Your task to perform on an android device: Go to Google maps Image 0: 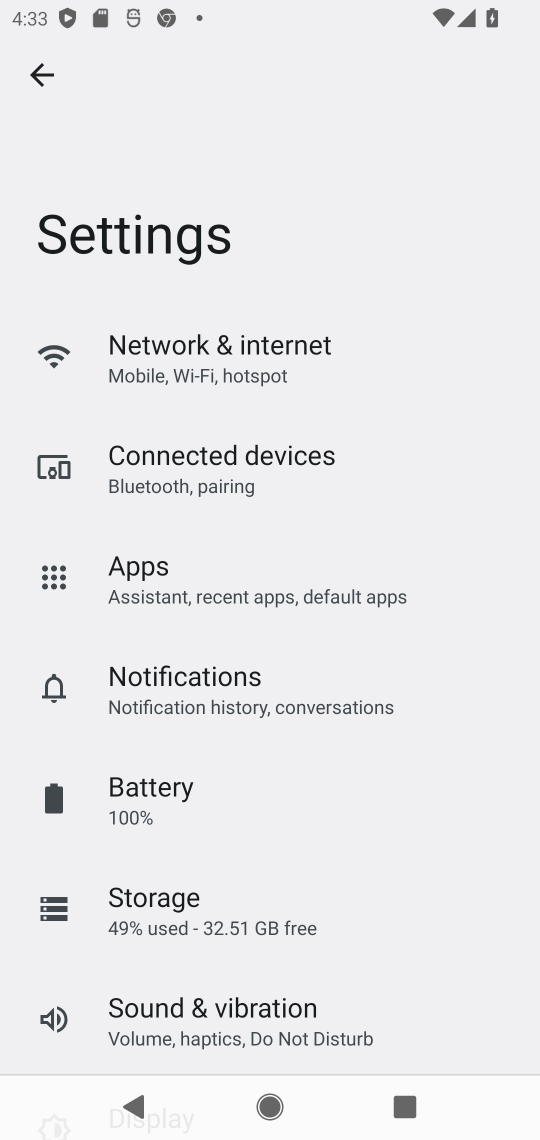
Step 0: press home button
Your task to perform on an android device: Go to Google maps Image 1: 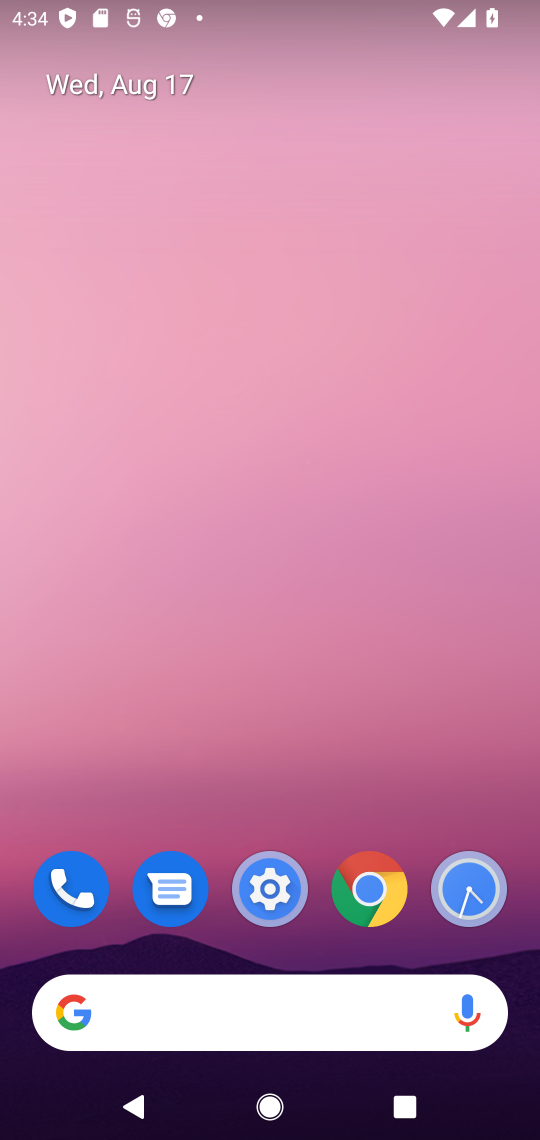
Step 1: drag from (306, 800) to (220, 186)
Your task to perform on an android device: Go to Google maps Image 2: 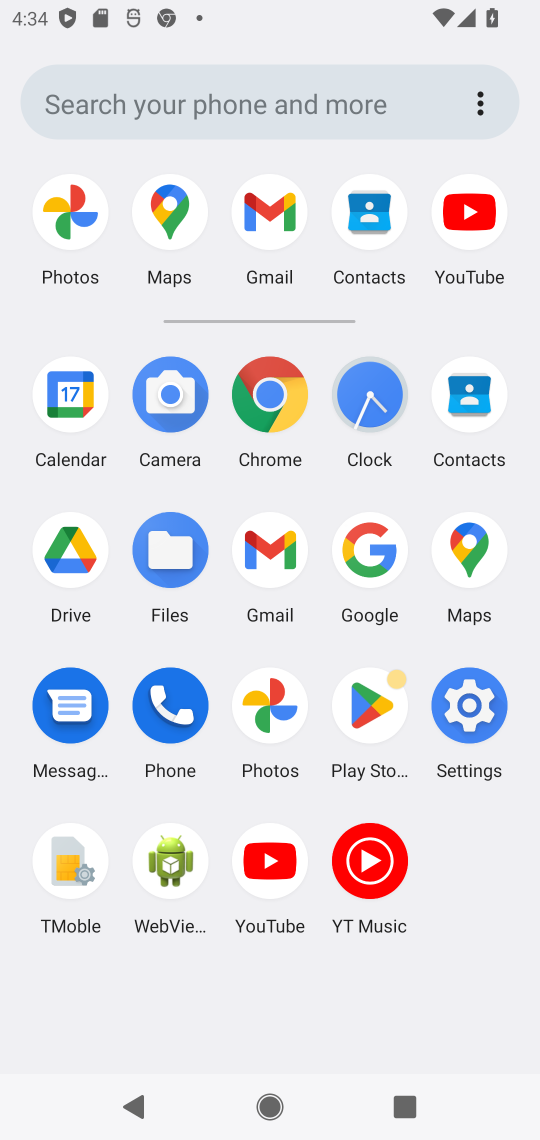
Step 2: click (162, 213)
Your task to perform on an android device: Go to Google maps Image 3: 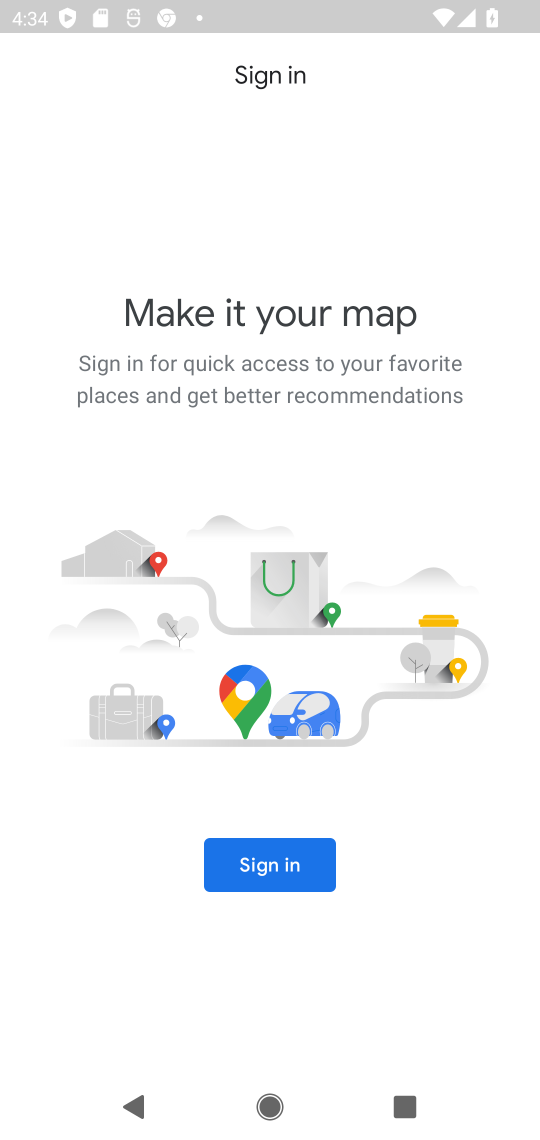
Step 3: task complete